Your task to perform on an android device: Open the phone app and click the voicemail tab. Image 0: 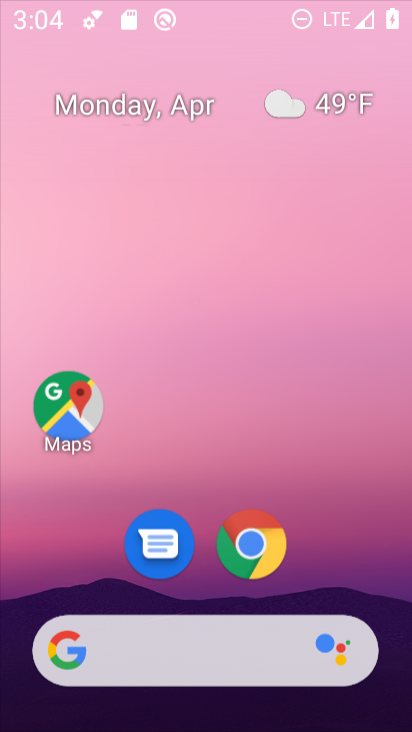
Step 0: click (68, 397)
Your task to perform on an android device: Open the phone app and click the voicemail tab. Image 1: 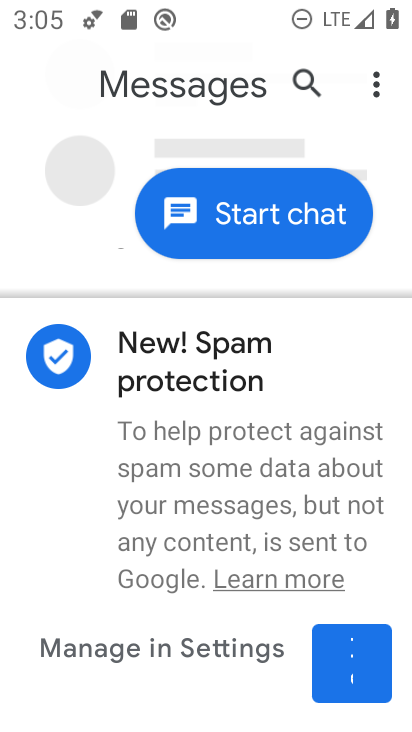
Step 1: press home button
Your task to perform on an android device: Open the phone app and click the voicemail tab. Image 2: 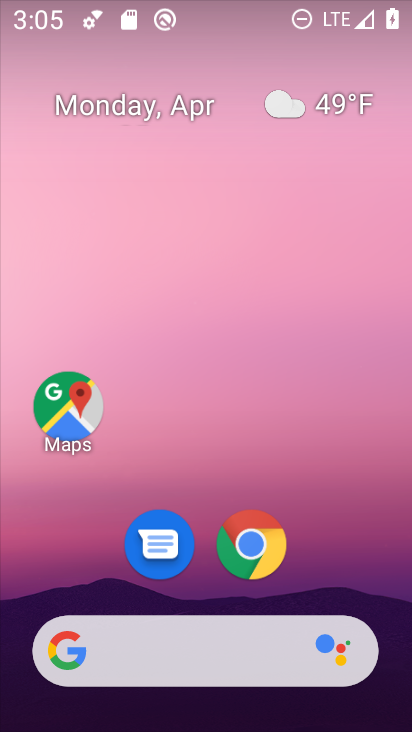
Step 2: drag from (337, 562) to (182, 17)
Your task to perform on an android device: Open the phone app and click the voicemail tab. Image 3: 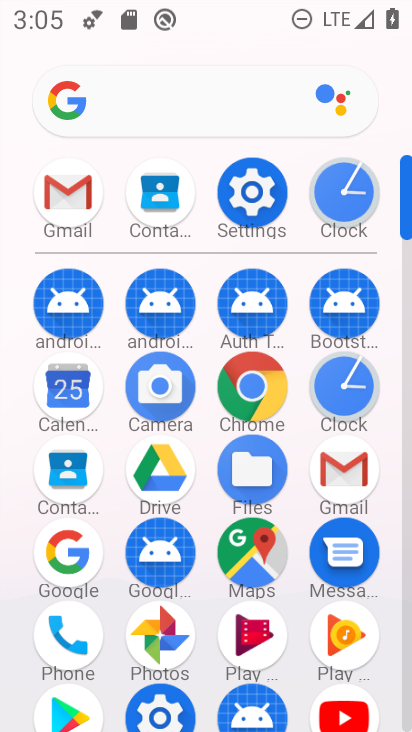
Step 3: click (78, 632)
Your task to perform on an android device: Open the phone app and click the voicemail tab. Image 4: 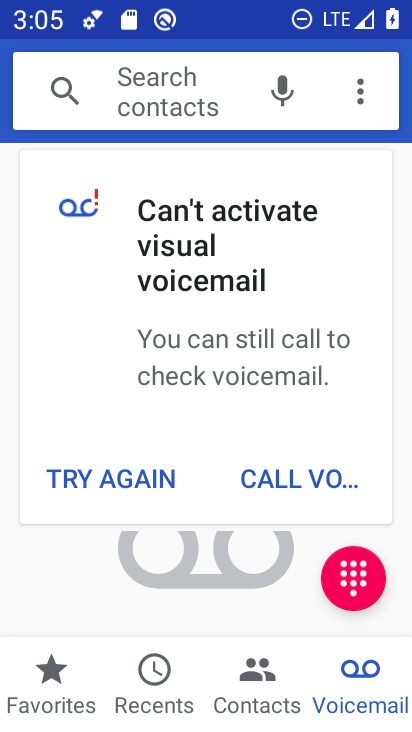
Step 4: task complete